Your task to perform on an android device: Open Reddit.com Image 0: 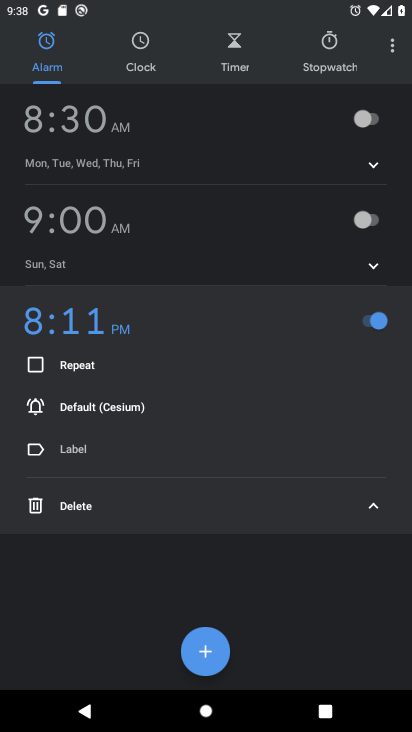
Step 0: press home button
Your task to perform on an android device: Open Reddit.com Image 1: 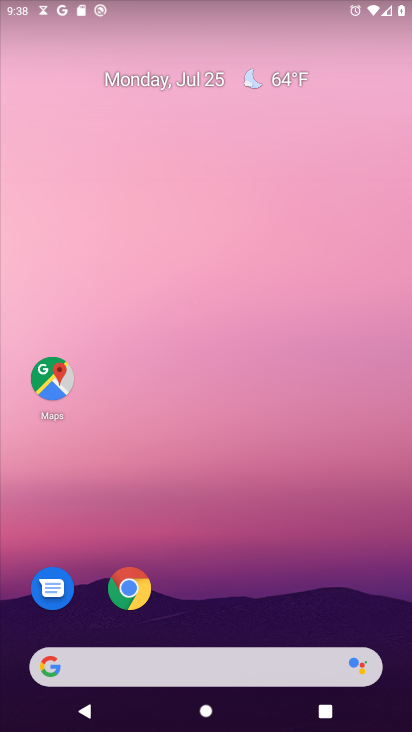
Step 1: drag from (181, 658) to (189, 109)
Your task to perform on an android device: Open Reddit.com Image 2: 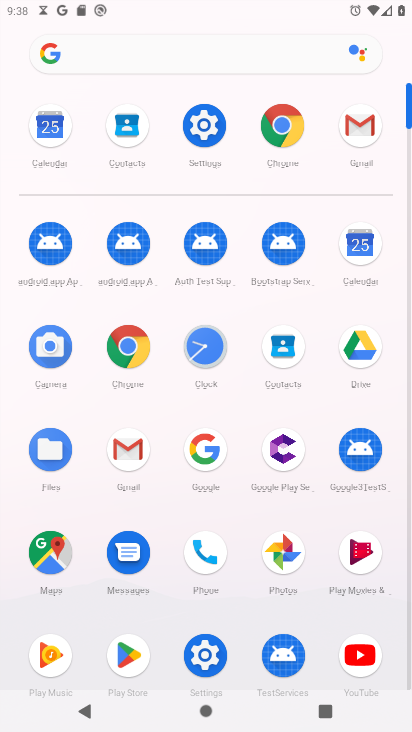
Step 2: click (273, 146)
Your task to perform on an android device: Open Reddit.com Image 3: 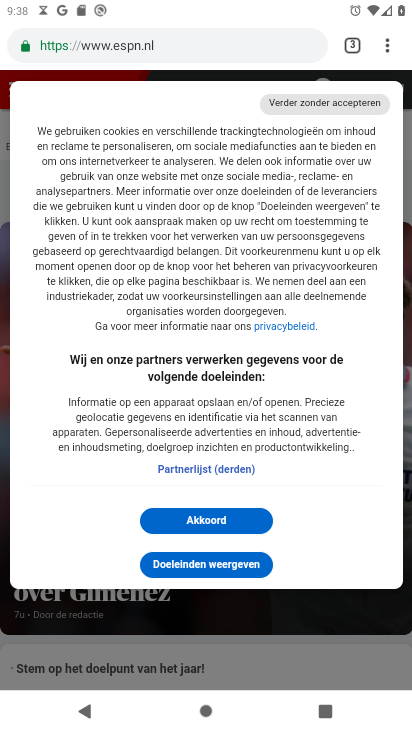
Step 3: click (224, 41)
Your task to perform on an android device: Open Reddit.com Image 4: 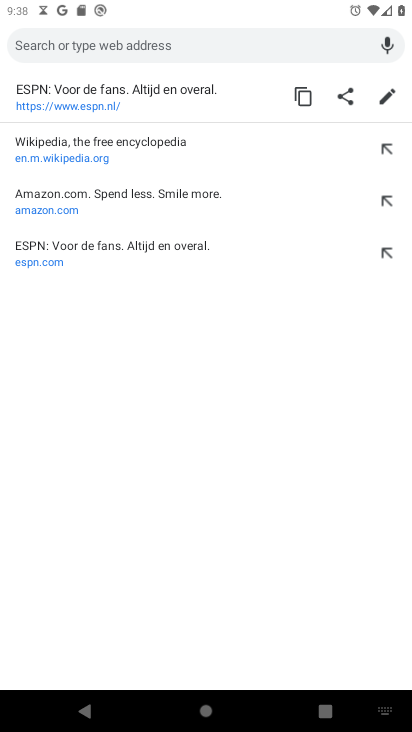
Step 4: type "reddit.com"
Your task to perform on an android device: Open Reddit.com Image 5: 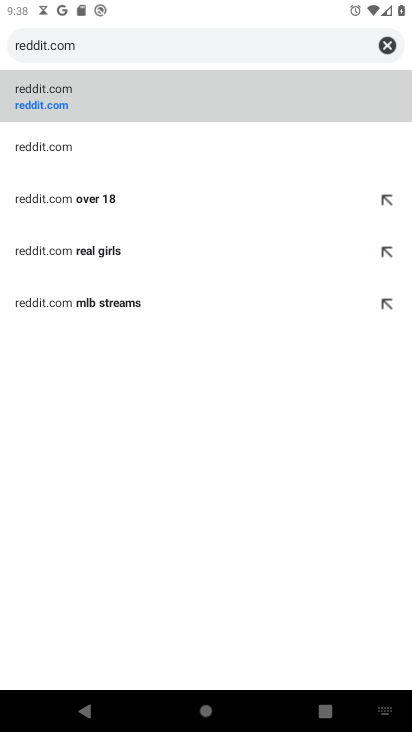
Step 5: click (185, 85)
Your task to perform on an android device: Open Reddit.com Image 6: 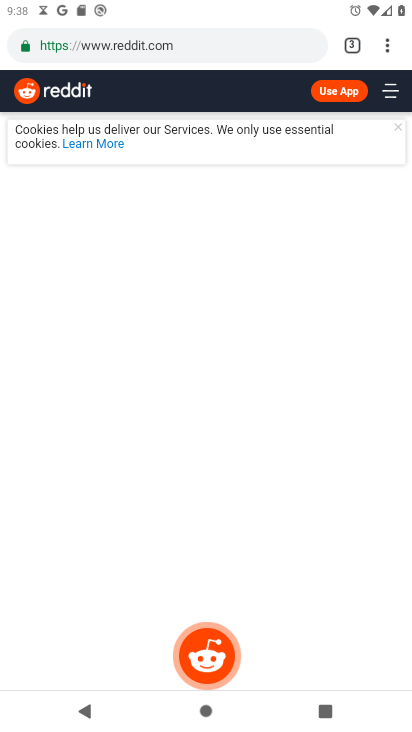
Step 6: task complete